Your task to perform on an android device: Search for Mexican restaurants on Maps Image 0: 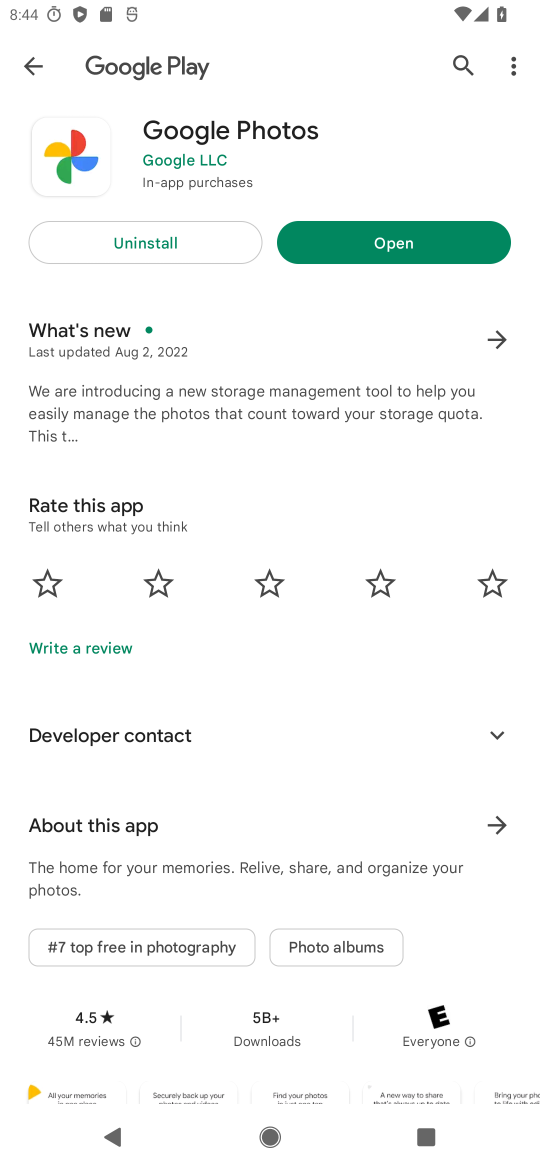
Step 0: press home button
Your task to perform on an android device: Search for Mexican restaurants on Maps Image 1: 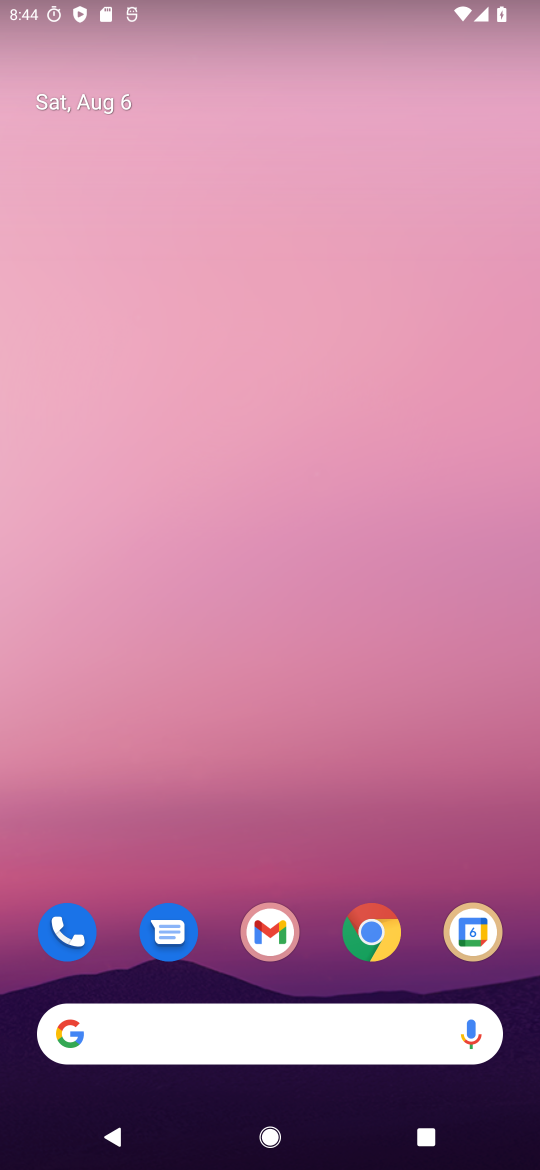
Step 1: drag from (199, 1009) to (444, 316)
Your task to perform on an android device: Search for Mexican restaurants on Maps Image 2: 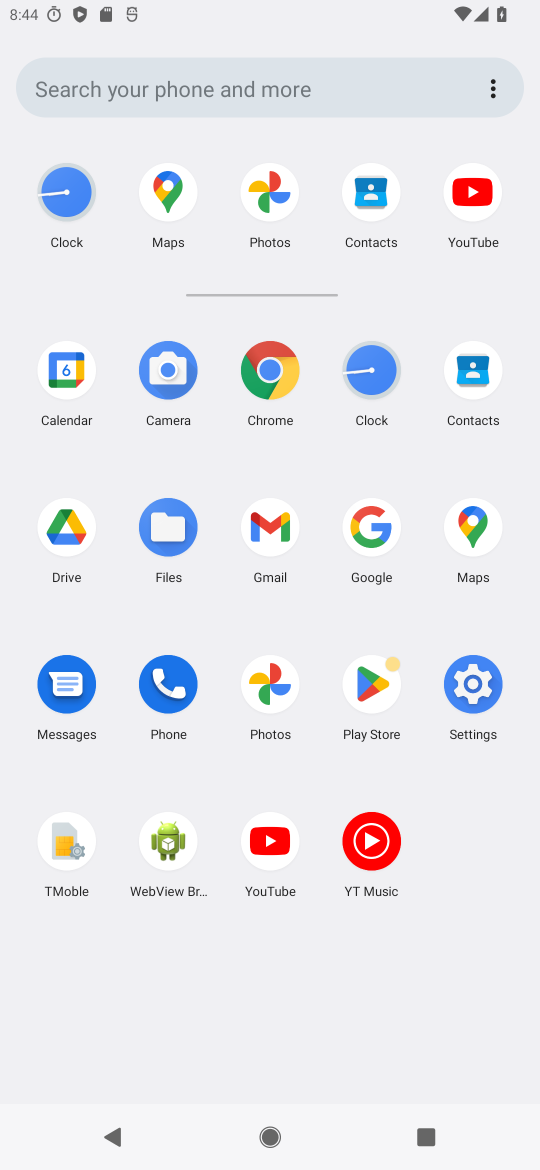
Step 2: click (479, 520)
Your task to perform on an android device: Search for Mexican restaurants on Maps Image 3: 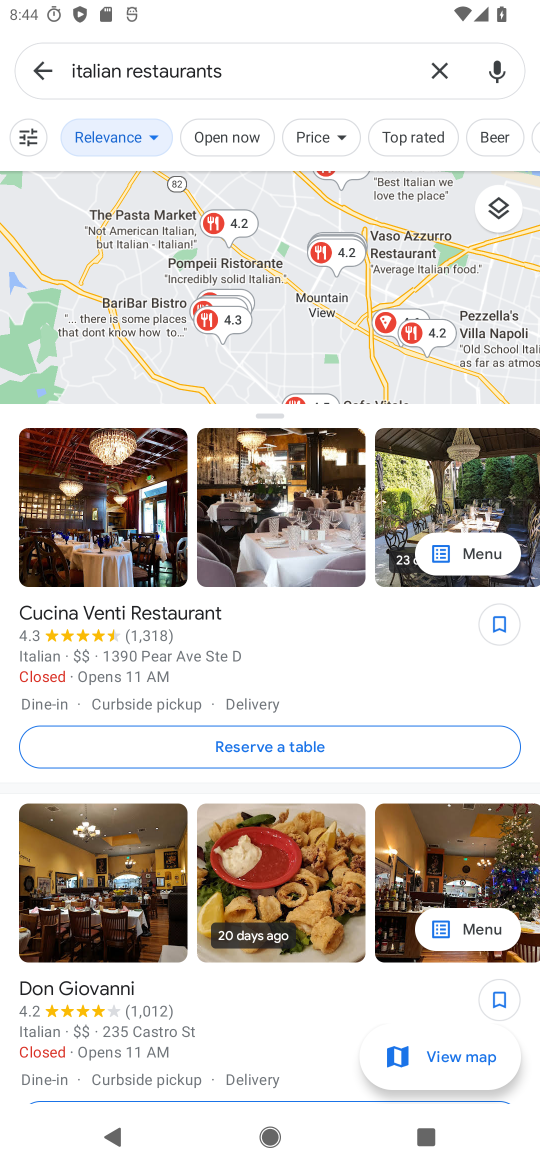
Step 3: click (440, 65)
Your task to perform on an android device: Search for Mexican restaurants on Maps Image 4: 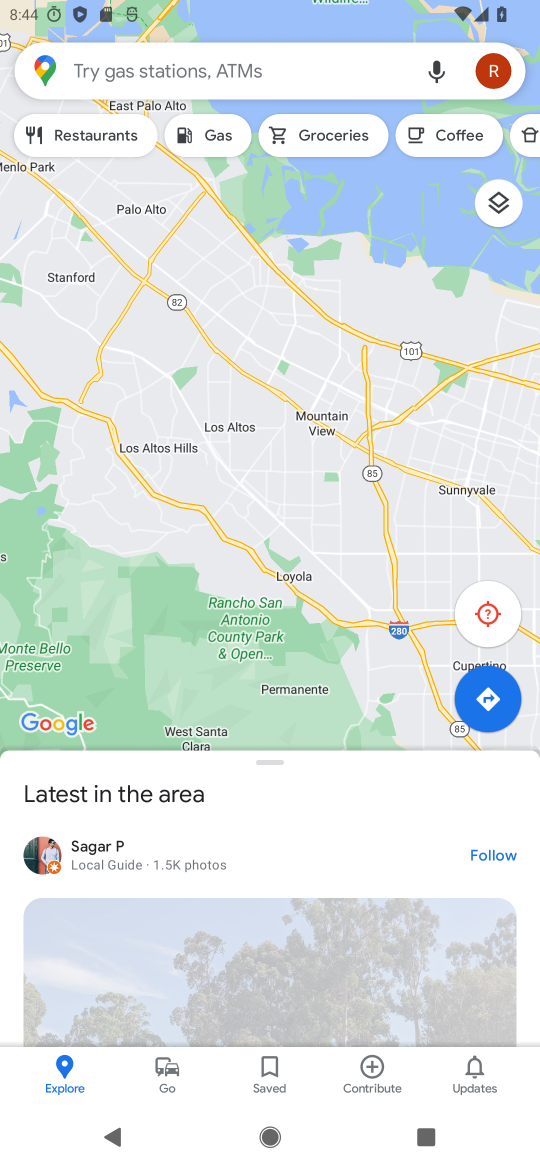
Step 4: click (230, 58)
Your task to perform on an android device: Search for Mexican restaurants on Maps Image 5: 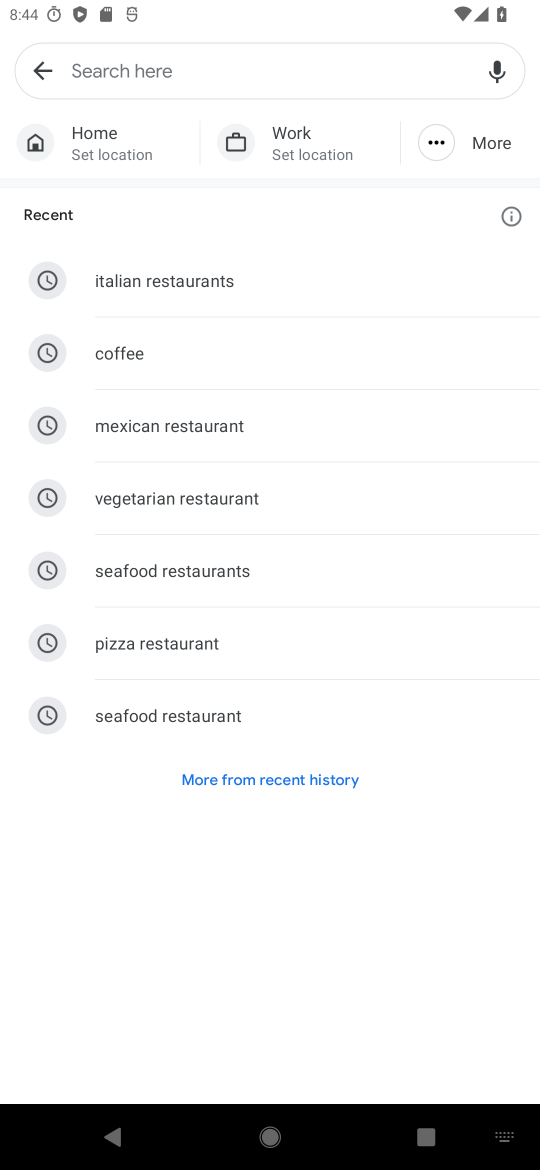
Step 5: click (153, 425)
Your task to perform on an android device: Search for Mexican restaurants on Maps Image 6: 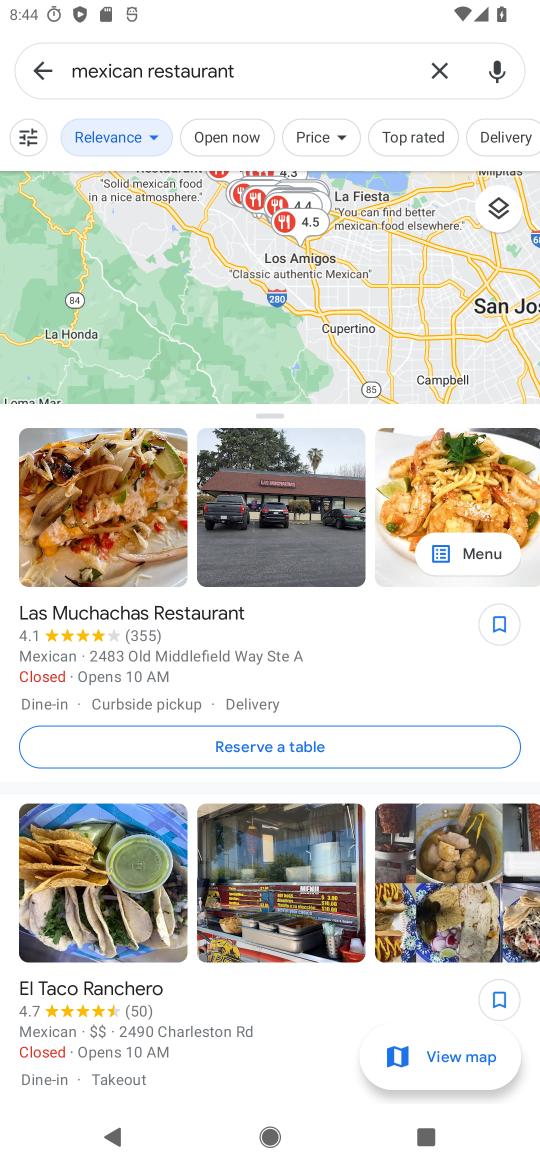
Step 6: task complete